Your task to perform on an android device: find which apps use the phone's location Image 0: 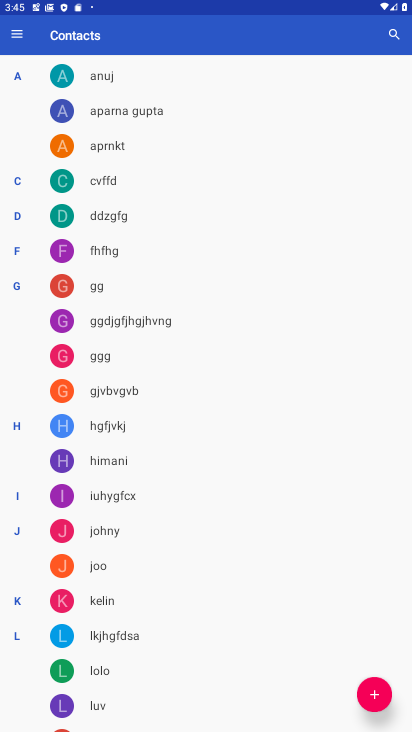
Step 0: press home button
Your task to perform on an android device: find which apps use the phone's location Image 1: 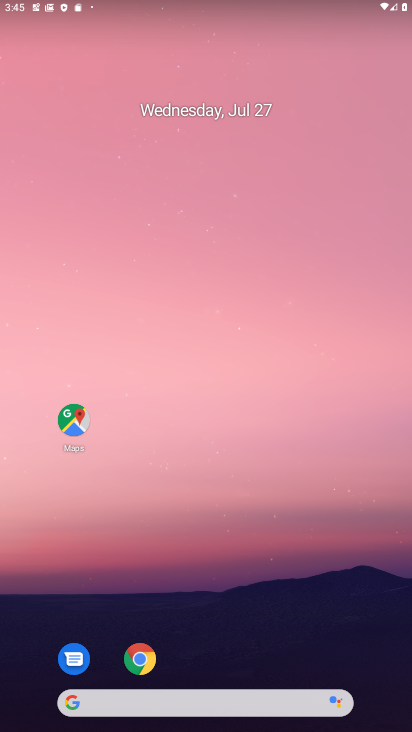
Step 1: drag from (157, 690) to (157, 431)
Your task to perform on an android device: find which apps use the phone's location Image 2: 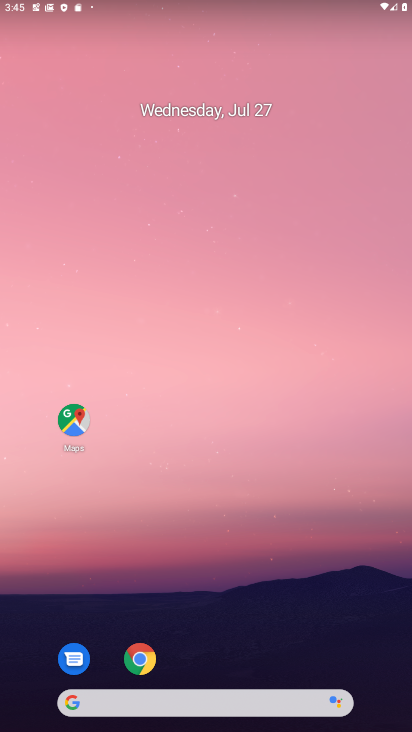
Step 2: drag from (258, 687) to (258, 122)
Your task to perform on an android device: find which apps use the phone's location Image 3: 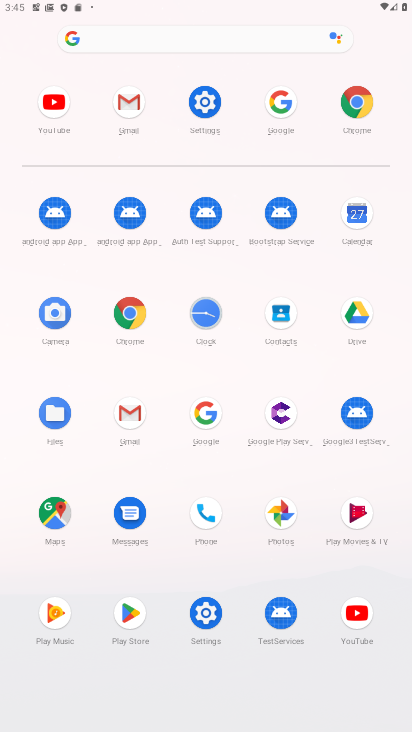
Step 3: click (197, 111)
Your task to perform on an android device: find which apps use the phone's location Image 4: 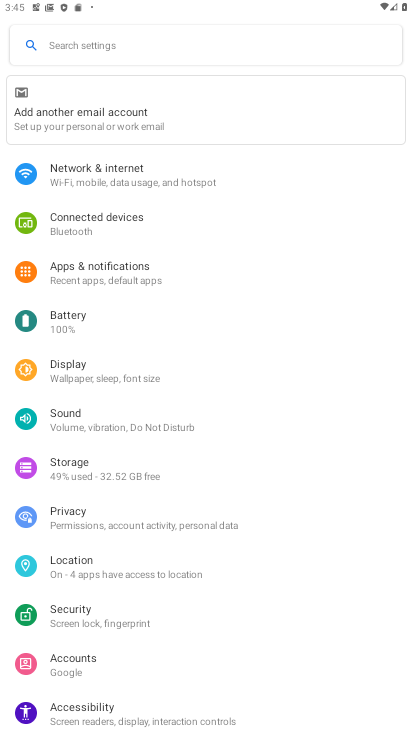
Step 4: click (68, 571)
Your task to perform on an android device: find which apps use the phone's location Image 5: 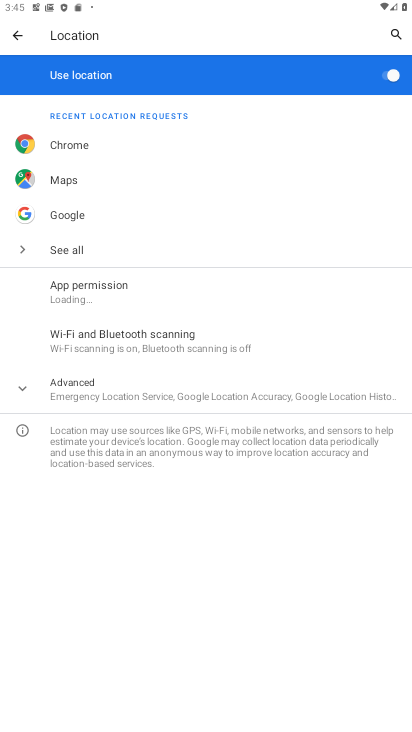
Step 5: click (77, 384)
Your task to perform on an android device: find which apps use the phone's location Image 6: 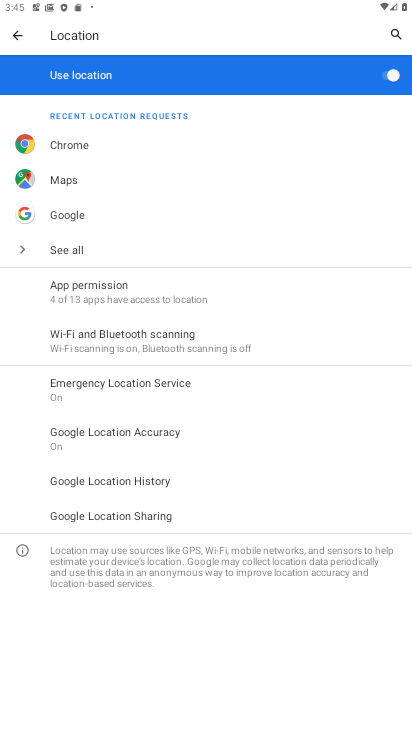
Step 6: click (112, 290)
Your task to perform on an android device: find which apps use the phone's location Image 7: 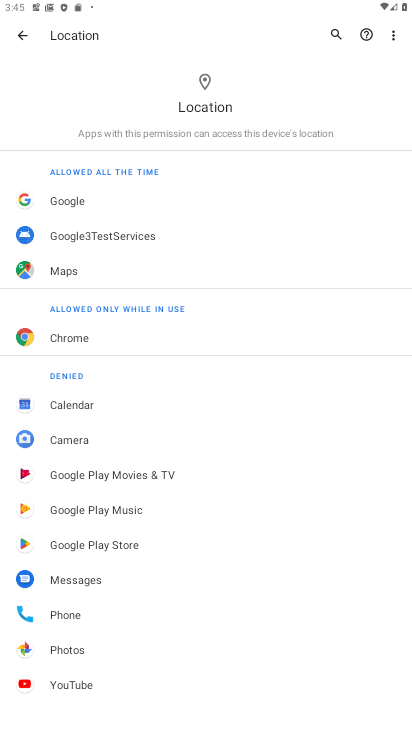
Step 7: task complete